Your task to perform on an android device: see creations saved in the google photos Image 0: 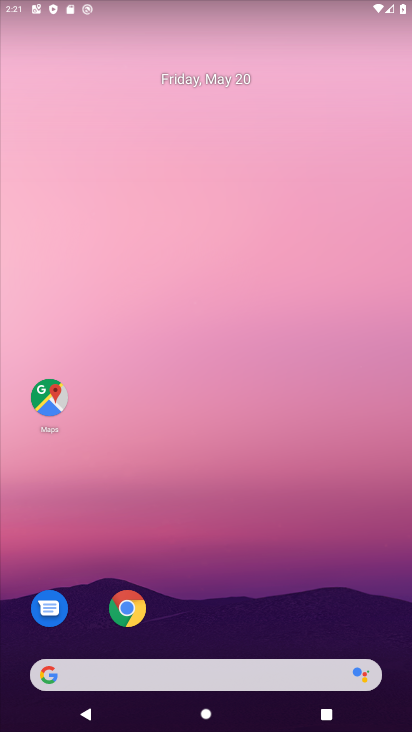
Step 0: drag from (227, 579) to (333, 104)
Your task to perform on an android device: see creations saved in the google photos Image 1: 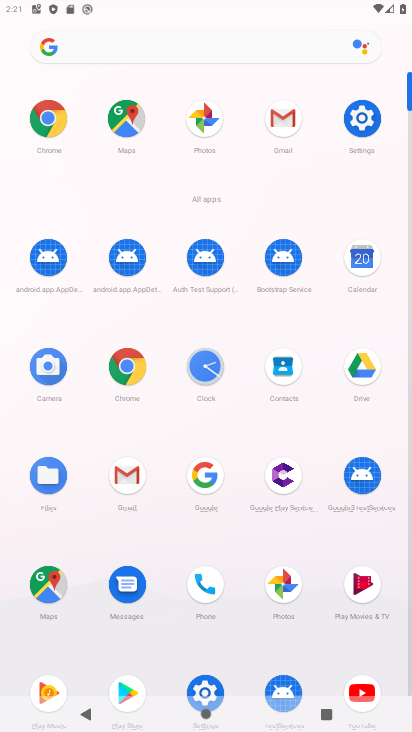
Step 1: click (275, 586)
Your task to perform on an android device: see creations saved in the google photos Image 2: 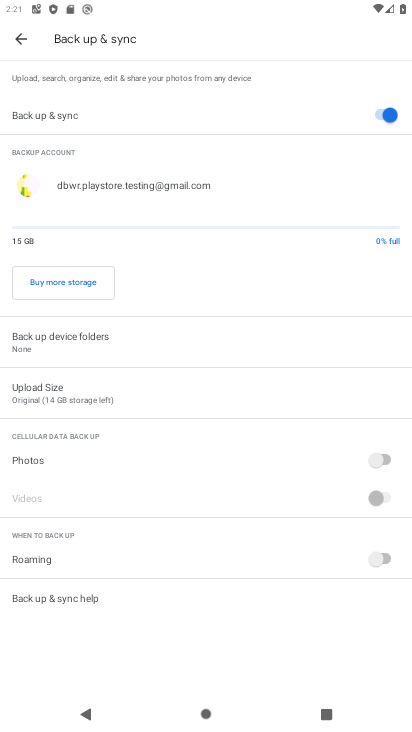
Step 2: click (17, 37)
Your task to perform on an android device: see creations saved in the google photos Image 3: 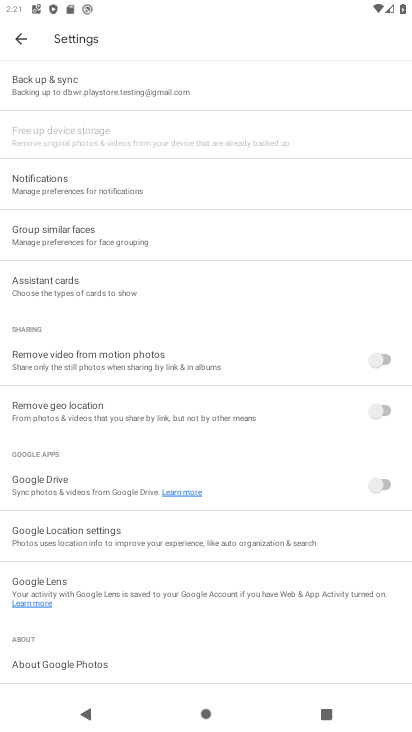
Step 3: click (19, 37)
Your task to perform on an android device: see creations saved in the google photos Image 4: 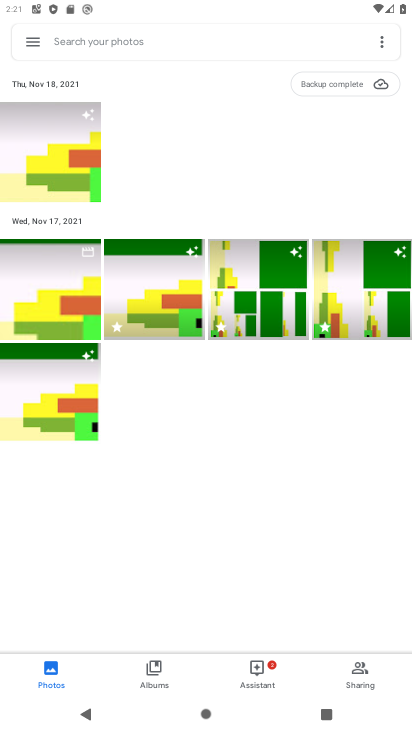
Step 4: click (26, 42)
Your task to perform on an android device: see creations saved in the google photos Image 5: 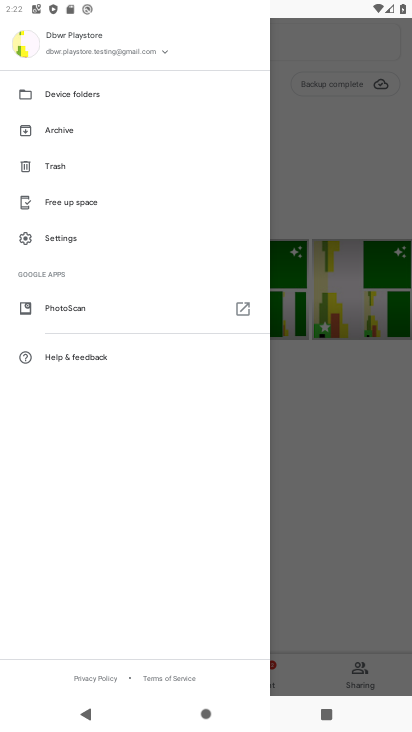
Step 5: click (82, 124)
Your task to perform on an android device: see creations saved in the google photos Image 6: 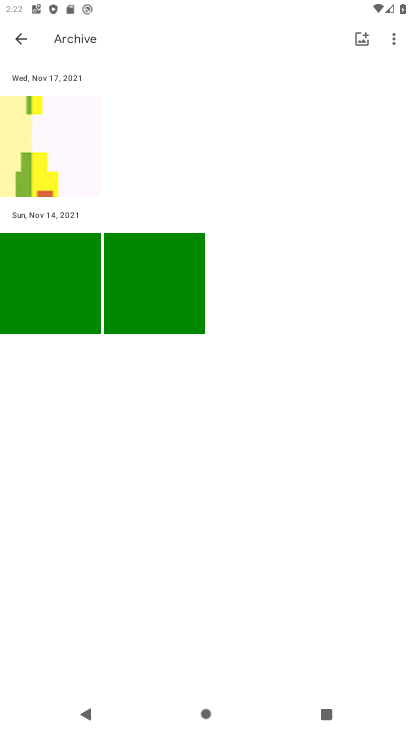
Step 6: task complete